Your task to perform on an android device: Open the stopwatch Image 0: 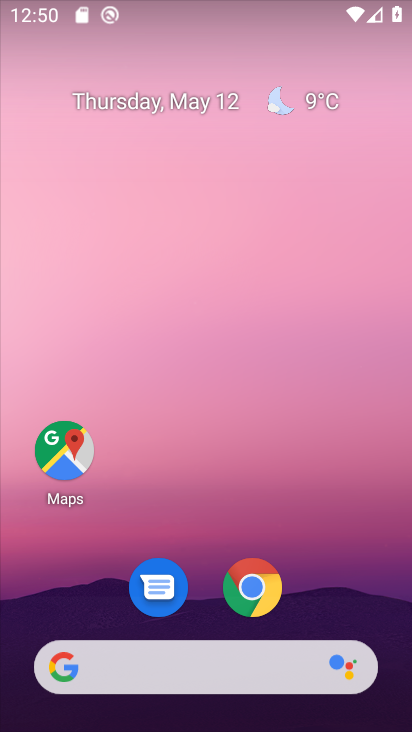
Step 0: drag from (299, 576) to (383, 4)
Your task to perform on an android device: Open the stopwatch Image 1: 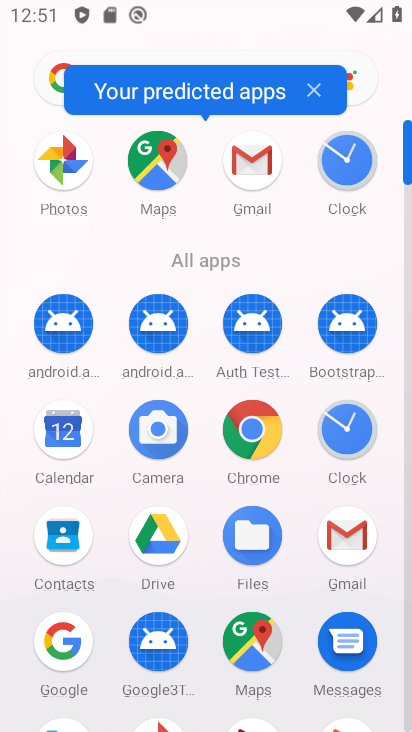
Step 1: drag from (265, 547) to (302, 294)
Your task to perform on an android device: Open the stopwatch Image 2: 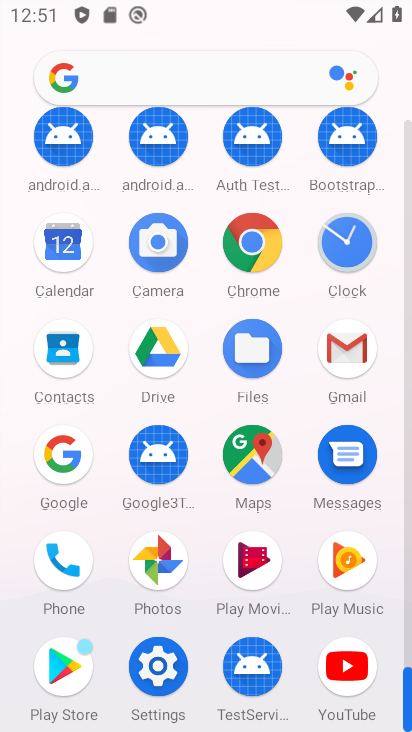
Step 2: click (348, 270)
Your task to perform on an android device: Open the stopwatch Image 3: 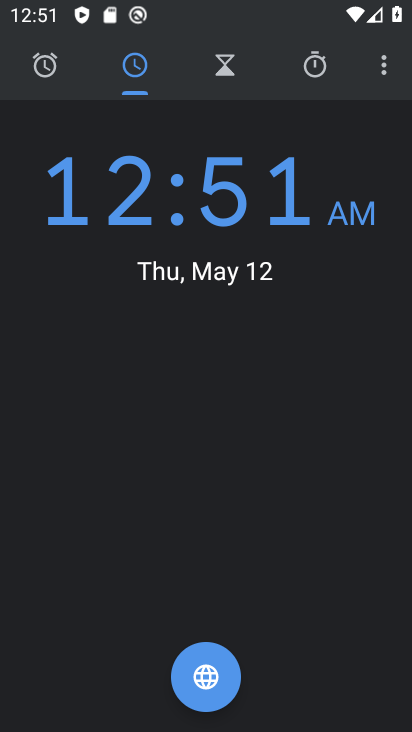
Step 3: click (316, 73)
Your task to perform on an android device: Open the stopwatch Image 4: 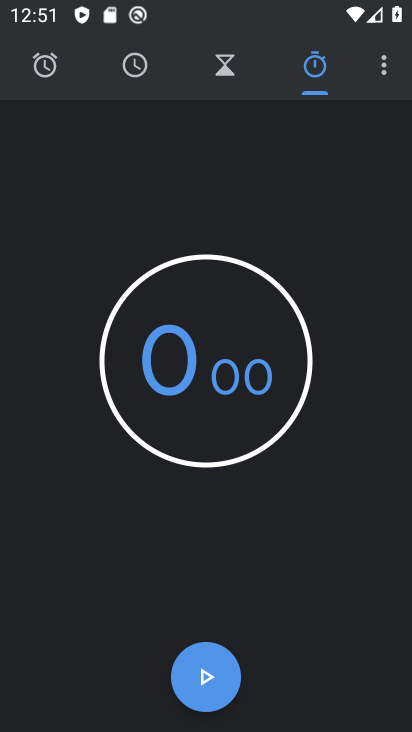
Step 4: task complete